Your task to perform on an android device: Open Youtube and go to "Your channel" Image 0: 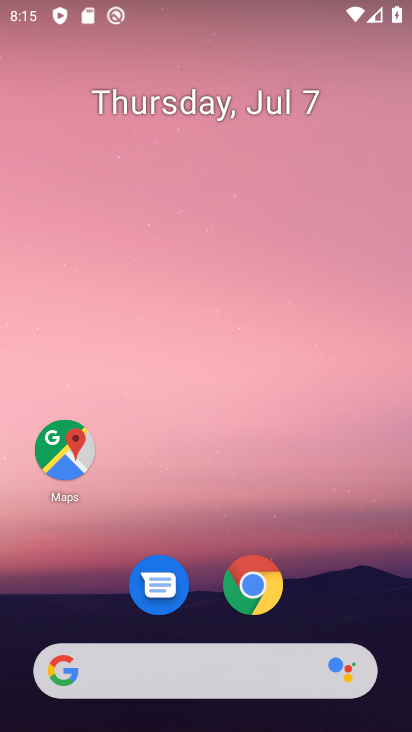
Step 0: drag from (239, 529) to (229, 3)
Your task to perform on an android device: Open Youtube and go to "Your channel" Image 1: 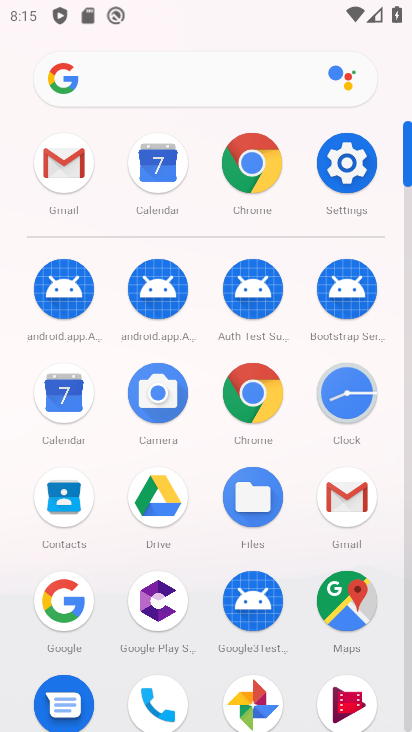
Step 1: drag from (215, 568) to (229, 147)
Your task to perform on an android device: Open Youtube and go to "Your channel" Image 2: 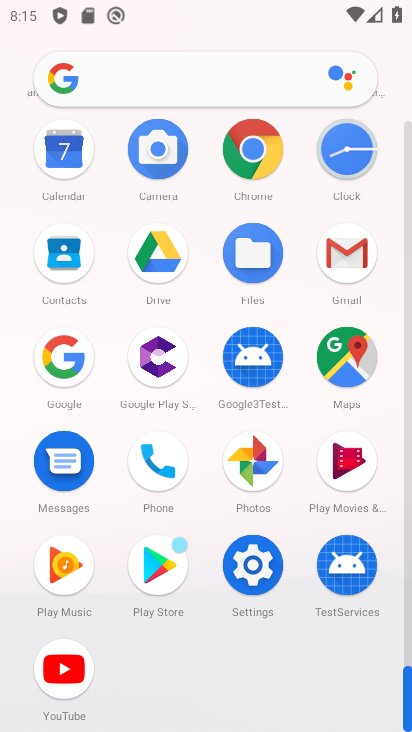
Step 2: click (71, 669)
Your task to perform on an android device: Open Youtube and go to "Your channel" Image 3: 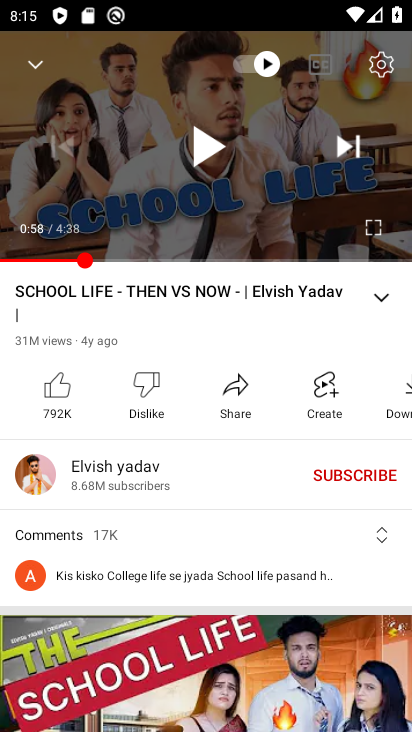
Step 3: press back button
Your task to perform on an android device: Open Youtube and go to "Your channel" Image 4: 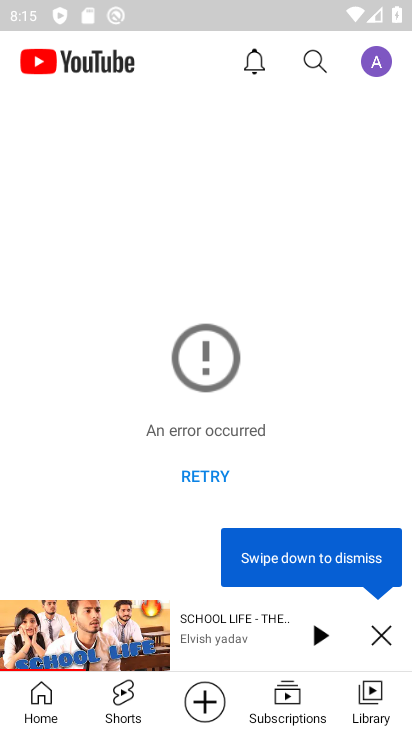
Step 4: click (384, 65)
Your task to perform on an android device: Open Youtube and go to "Your channel" Image 5: 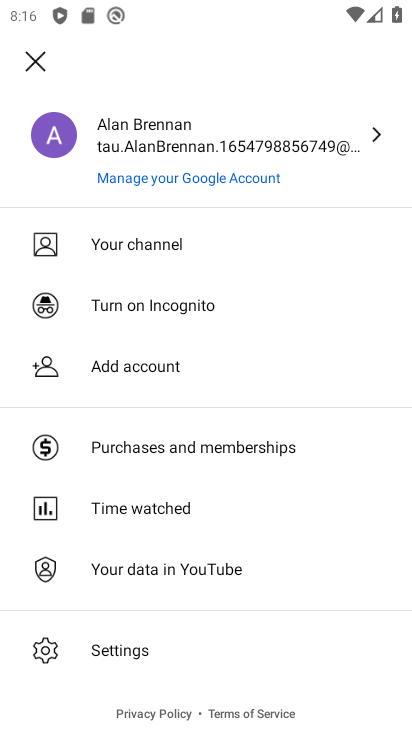
Step 5: click (166, 245)
Your task to perform on an android device: Open Youtube and go to "Your channel" Image 6: 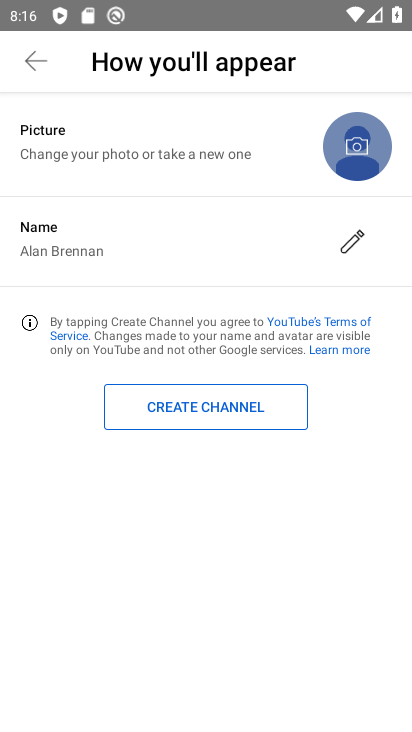
Step 6: task complete